Your task to perform on an android device: Open Google Chrome and open the bookmarks view Image 0: 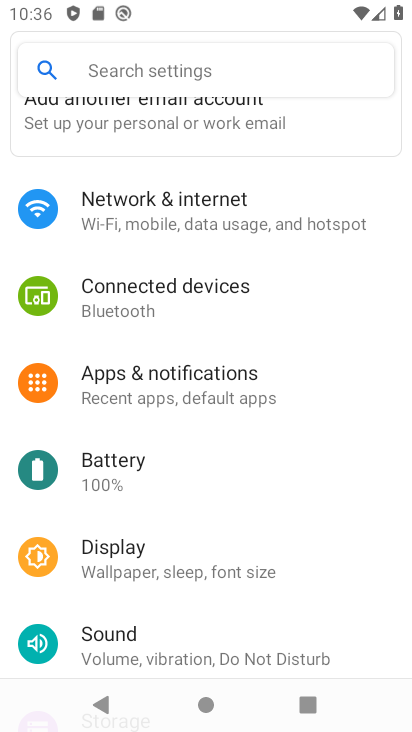
Step 0: press home button
Your task to perform on an android device: Open Google Chrome and open the bookmarks view Image 1: 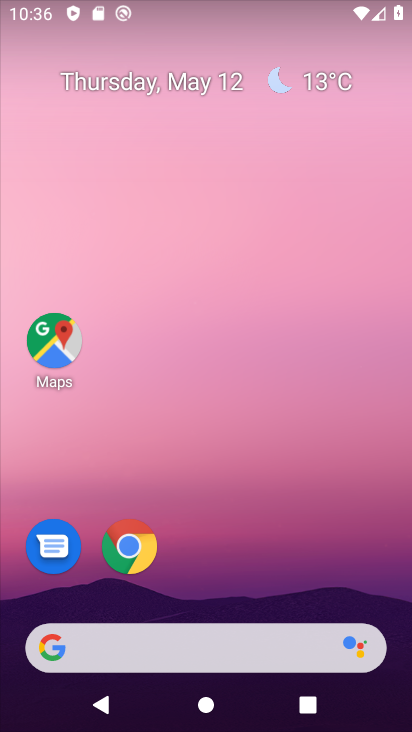
Step 1: drag from (274, 687) to (351, 307)
Your task to perform on an android device: Open Google Chrome and open the bookmarks view Image 2: 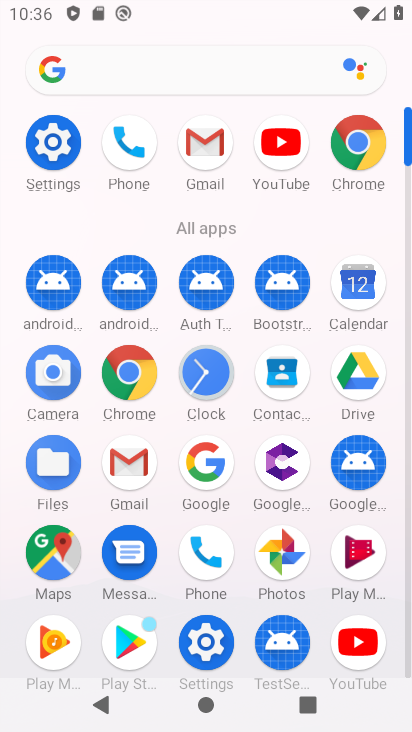
Step 2: click (131, 386)
Your task to perform on an android device: Open Google Chrome and open the bookmarks view Image 3: 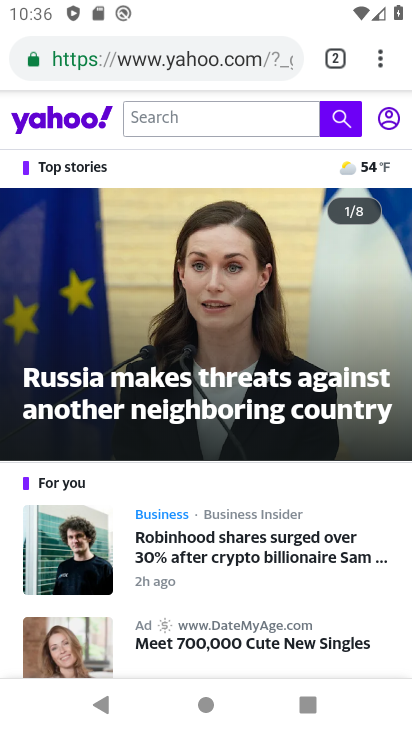
Step 3: click (374, 61)
Your task to perform on an android device: Open Google Chrome and open the bookmarks view Image 4: 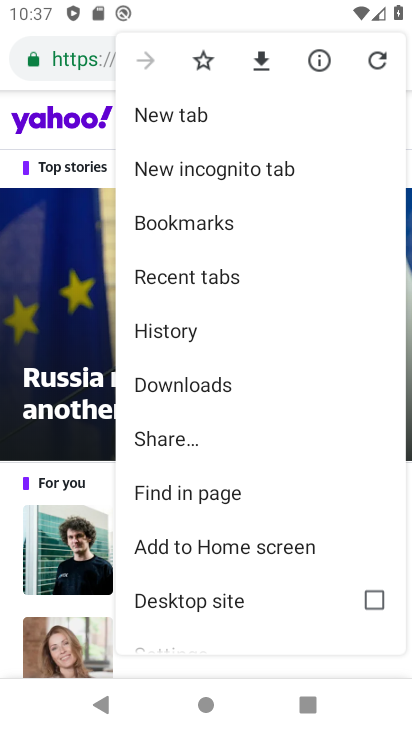
Step 4: click (191, 226)
Your task to perform on an android device: Open Google Chrome and open the bookmarks view Image 5: 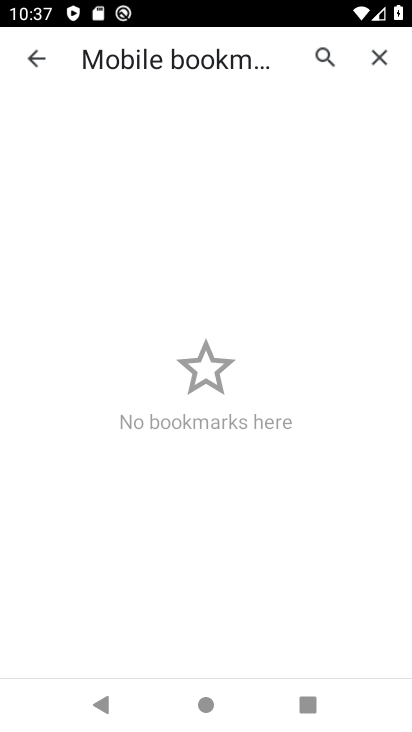
Step 5: task complete